Your task to perform on an android device: Go to notification settings Image 0: 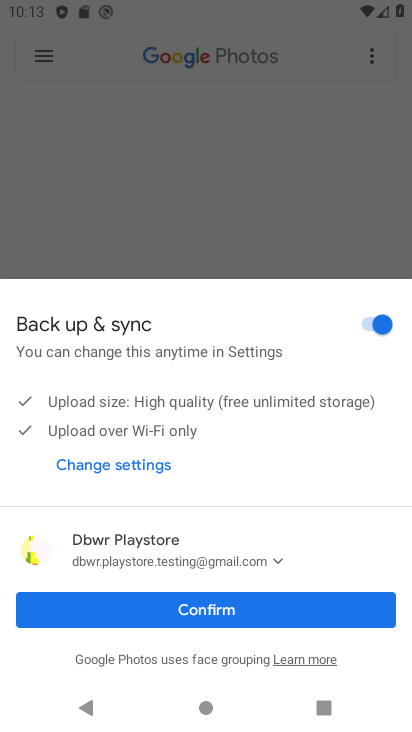
Step 0: press home button
Your task to perform on an android device: Go to notification settings Image 1: 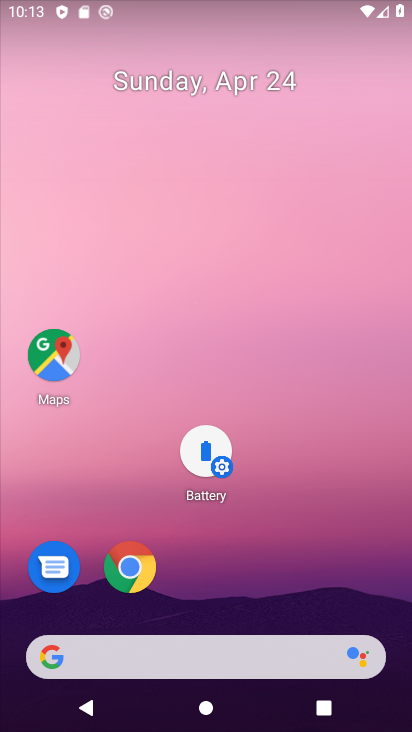
Step 1: drag from (20, 678) to (255, 209)
Your task to perform on an android device: Go to notification settings Image 2: 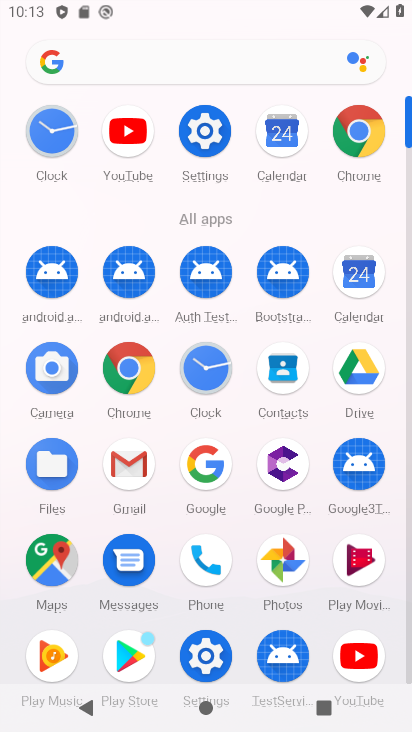
Step 2: click (192, 162)
Your task to perform on an android device: Go to notification settings Image 3: 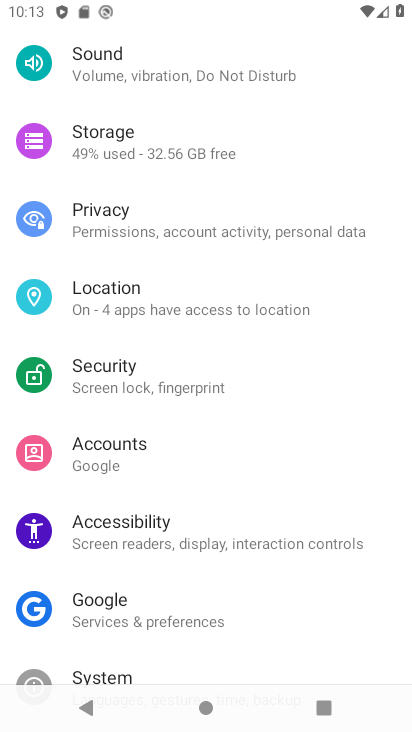
Step 3: drag from (226, 97) to (225, 527)
Your task to perform on an android device: Go to notification settings Image 4: 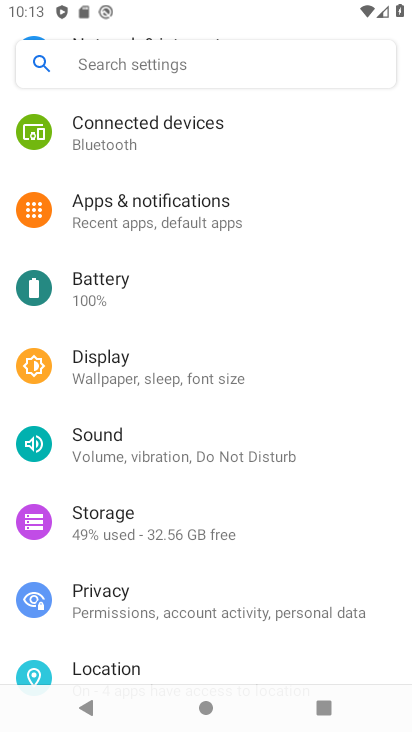
Step 4: click (205, 218)
Your task to perform on an android device: Go to notification settings Image 5: 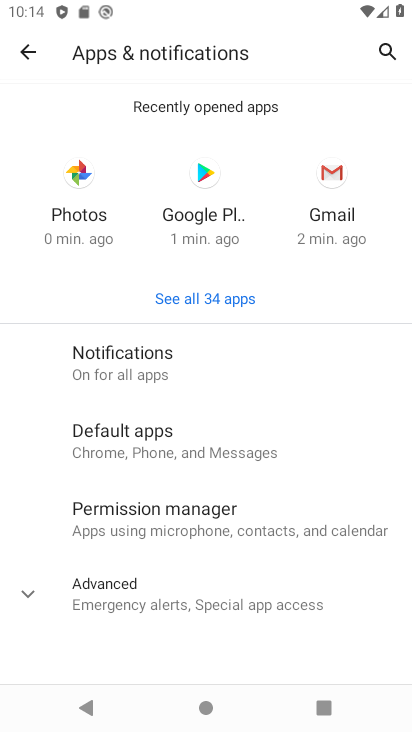
Step 5: task complete